Your task to perform on an android device: search for starred emails in the gmail app Image 0: 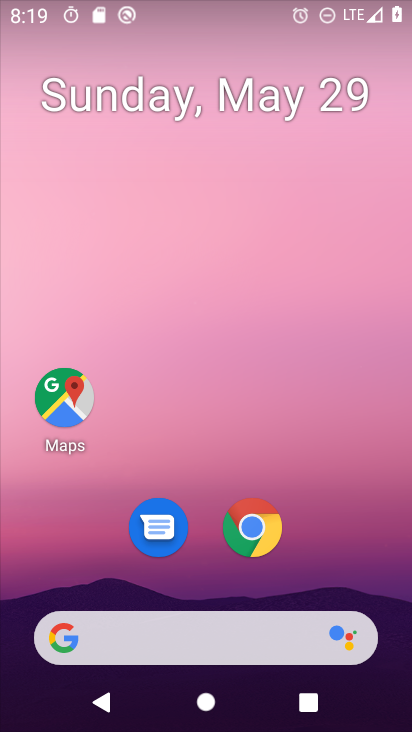
Step 0: drag from (269, 99) to (239, 33)
Your task to perform on an android device: search for starred emails in the gmail app Image 1: 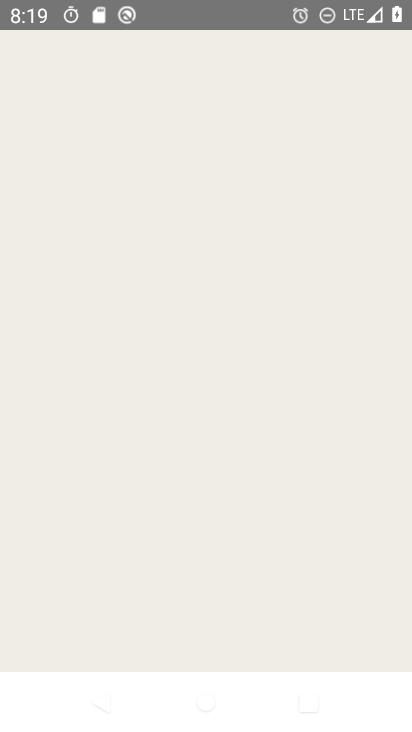
Step 1: press home button
Your task to perform on an android device: search for starred emails in the gmail app Image 2: 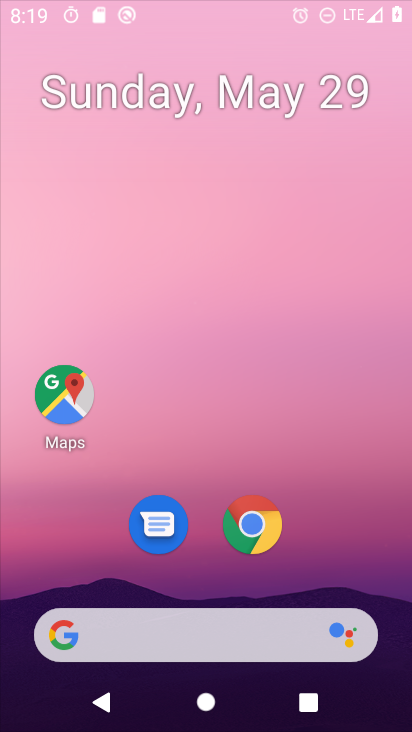
Step 2: drag from (384, 692) to (283, 73)
Your task to perform on an android device: search for starred emails in the gmail app Image 3: 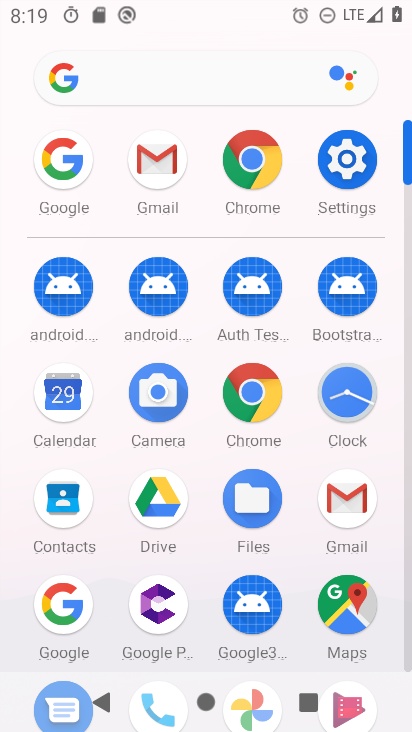
Step 3: click (344, 518)
Your task to perform on an android device: search for starred emails in the gmail app Image 4: 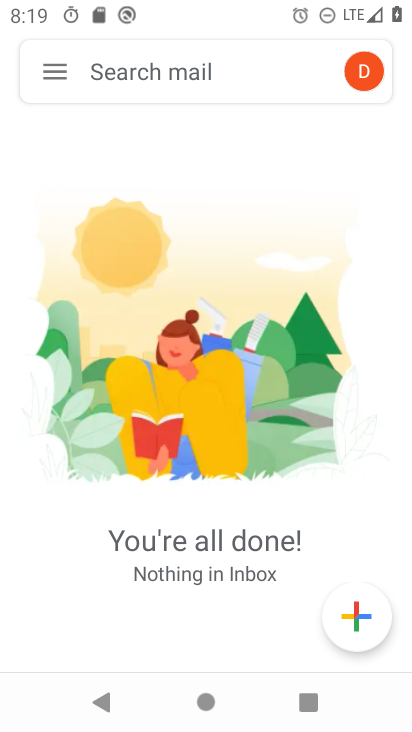
Step 4: click (52, 81)
Your task to perform on an android device: search for starred emails in the gmail app Image 5: 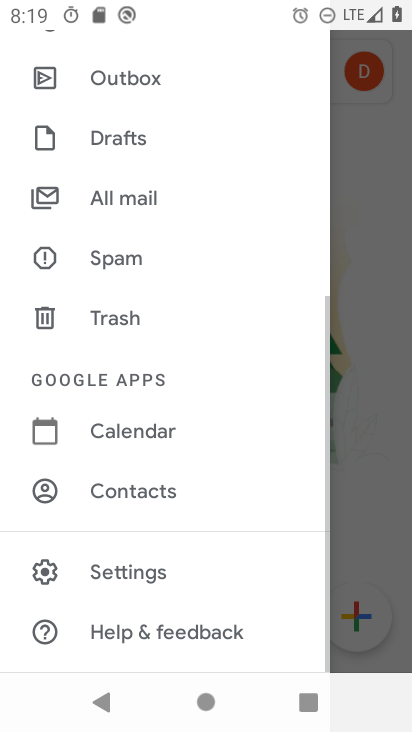
Step 5: drag from (97, 139) to (97, 692)
Your task to perform on an android device: search for starred emails in the gmail app Image 6: 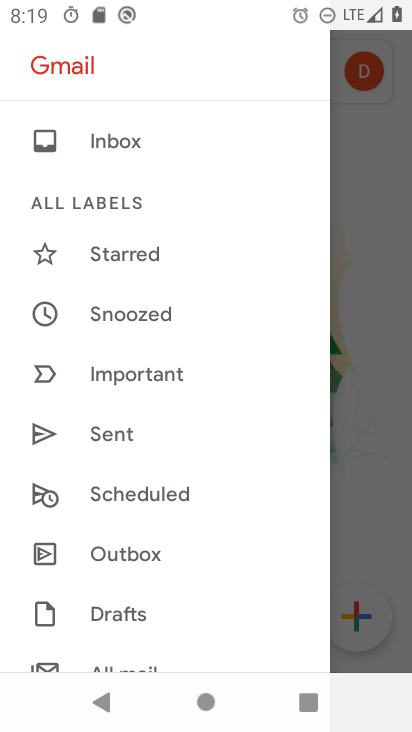
Step 6: click (155, 262)
Your task to perform on an android device: search for starred emails in the gmail app Image 7: 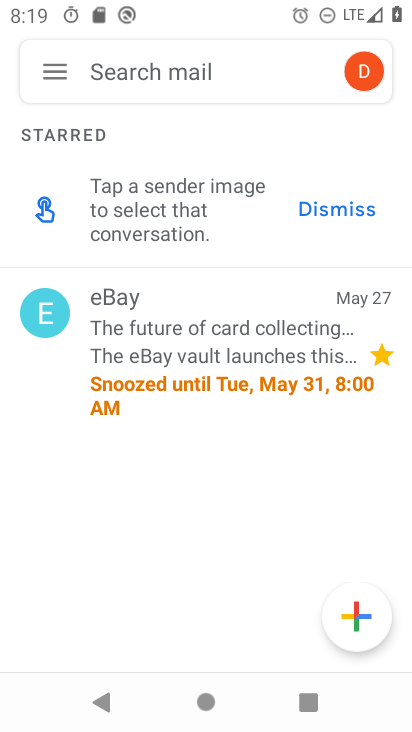
Step 7: task complete